Your task to perform on an android device: Open Wikipedia Image 0: 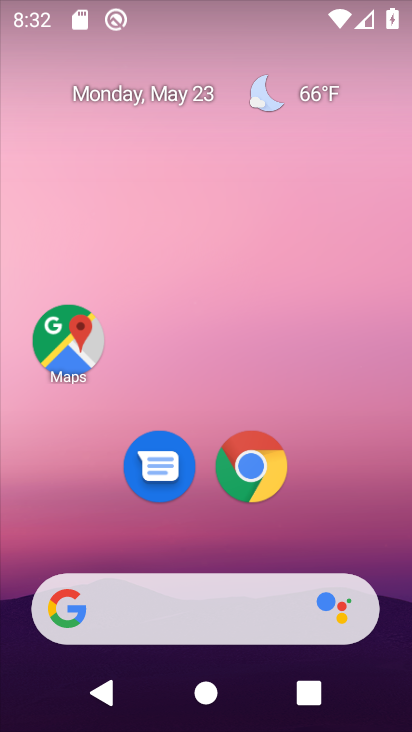
Step 0: click (259, 461)
Your task to perform on an android device: Open Wikipedia Image 1: 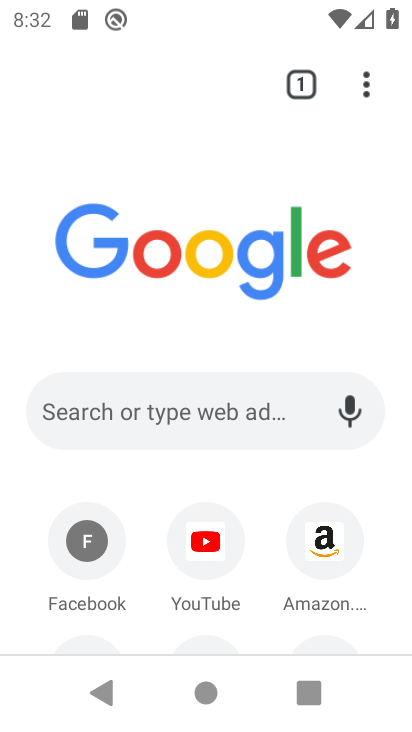
Step 1: drag from (285, 540) to (277, 248)
Your task to perform on an android device: Open Wikipedia Image 2: 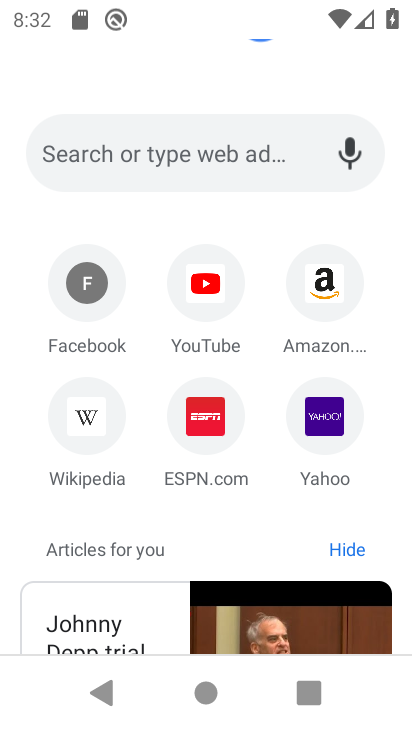
Step 2: click (92, 421)
Your task to perform on an android device: Open Wikipedia Image 3: 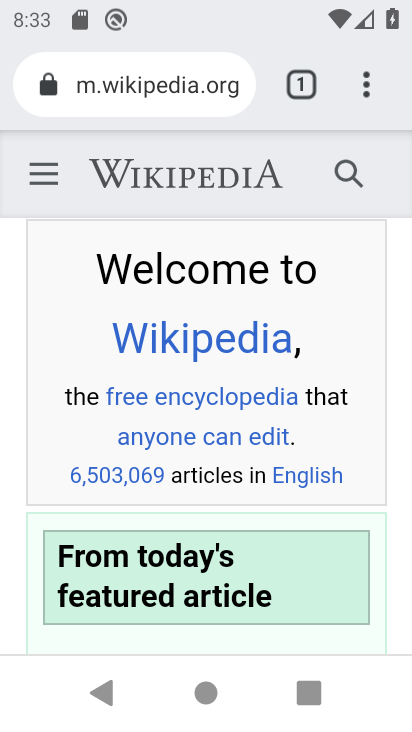
Step 3: task complete